Your task to perform on an android device: Go to Android settings Image 0: 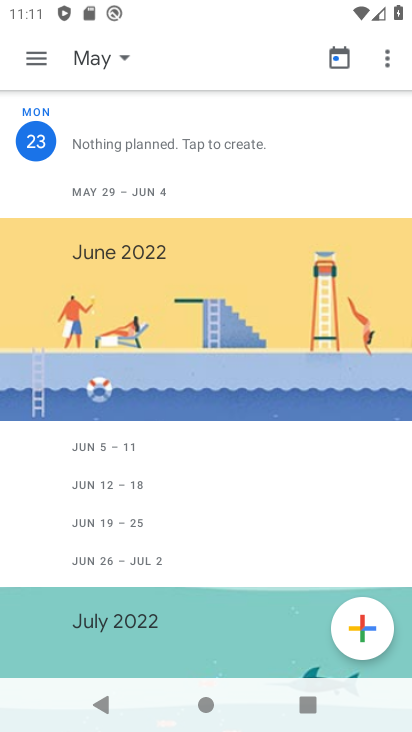
Step 0: drag from (206, 610) to (232, 168)
Your task to perform on an android device: Go to Android settings Image 1: 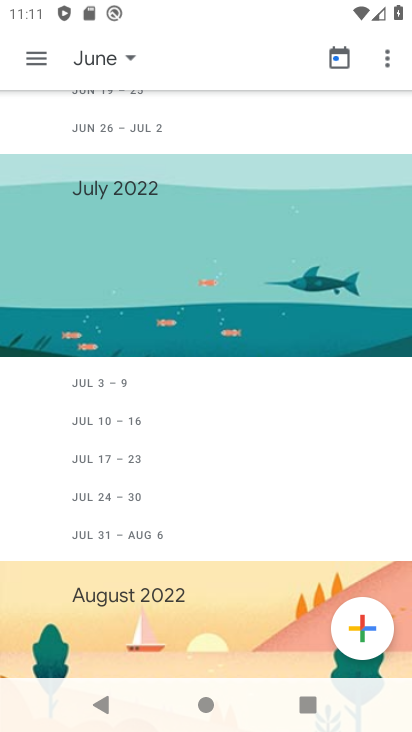
Step 1: press home button
Your task to perform on an android device: Go to Android settings Image 2: 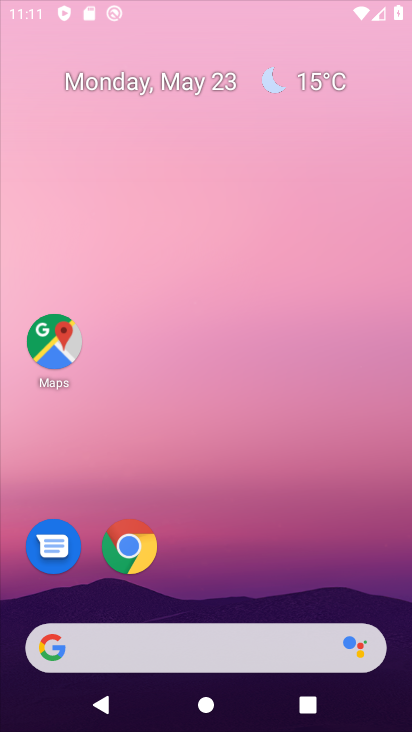
Step 2: drag from (257, 537) to (254, 135)
Your task to perform on an android device: Go to Android settings Image 3: 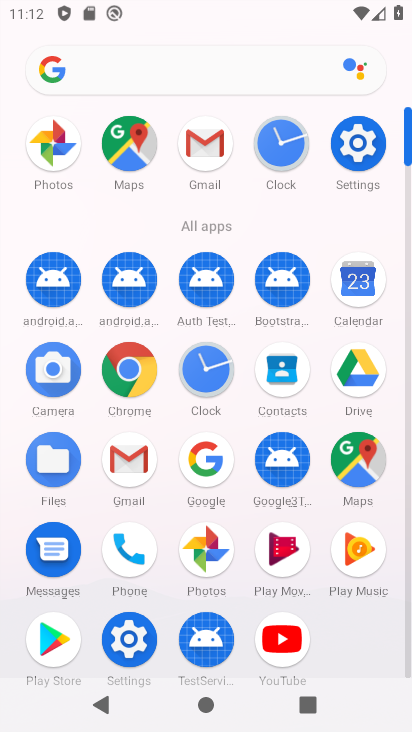
Step 3: click (361, 148)
Your task to perform on an android device: Go to Android settings Image 4: 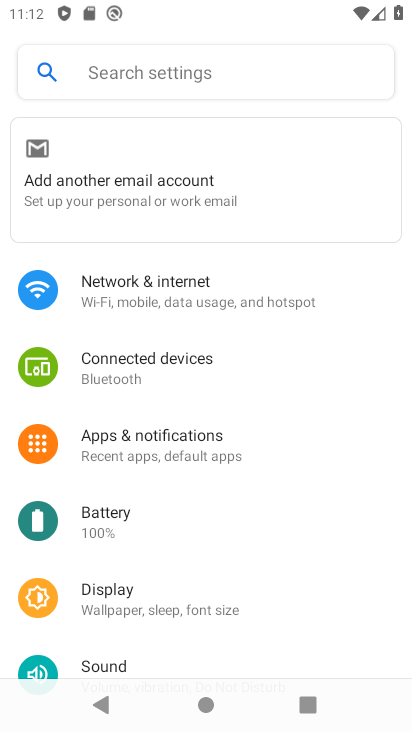
Step 4: drag from (184, 545) to (199, 261)
Your task to perform on an android device: Go to Android settings Image 5: 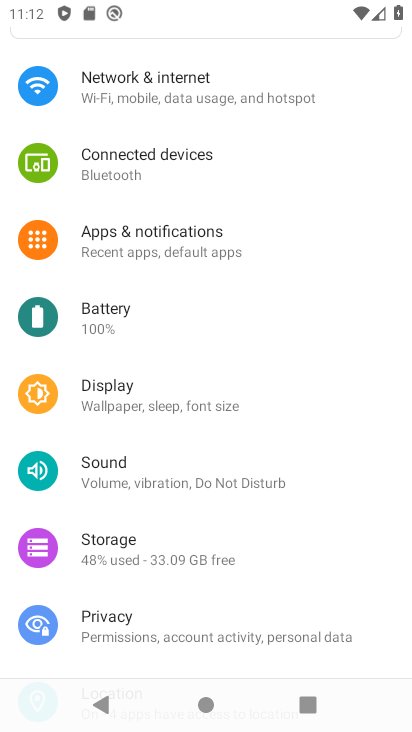
Step 5: drag from (191, 620) to (240, 224)
Your task to perform on an android device: Go to Android settings Image 6: 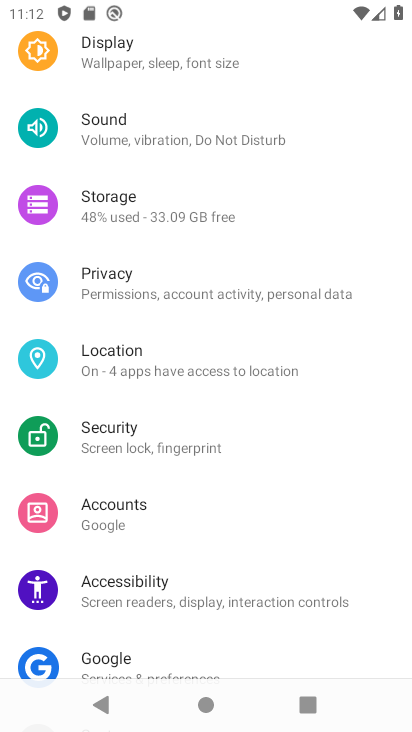
Step 6: drag from (170, 580) to (262, 118)
Your task to perform on an android device: Go to Android settings Image 7: 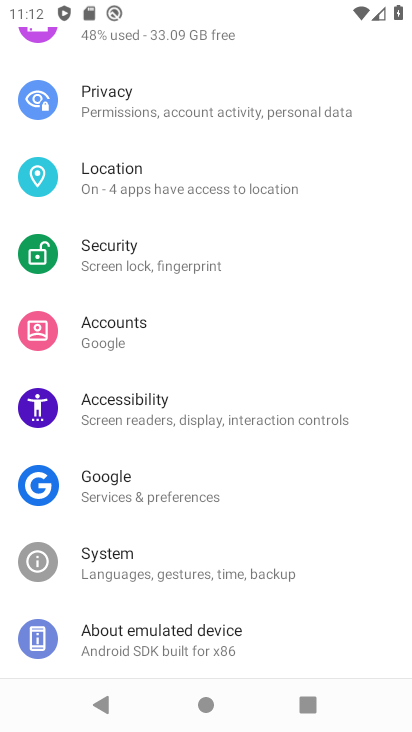
Step 7: click (155, 615)
Your task to perform on an android device: Go to Android settings Image 8: 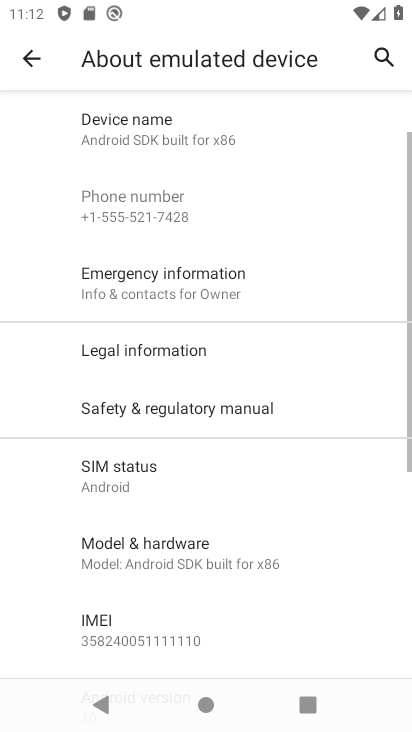
Step 8: drag from (241, 587) to (292, 158)
Your task to perform on an android device: Go to Android settings Image 9: 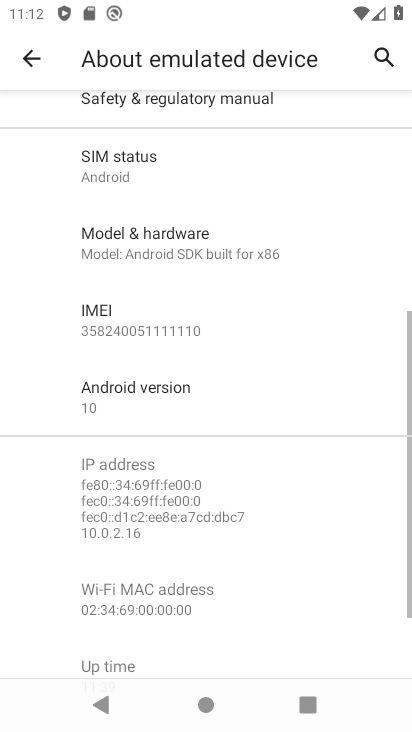
Step 9: click (156, 412)
Your task to perform on an android device: Go to Android settings Image 10: 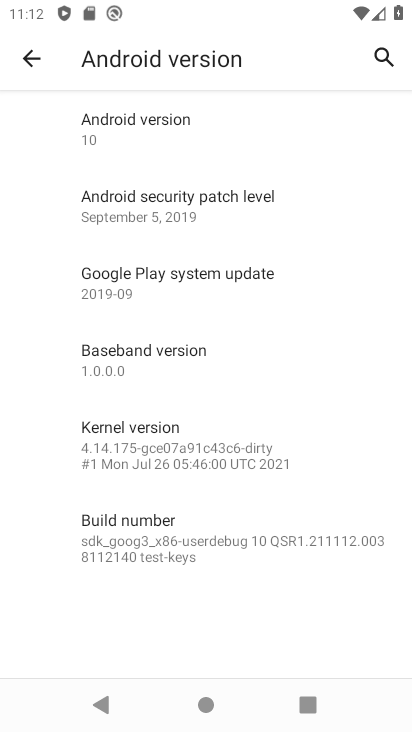
Step 10: click (184, 125)
Your task to perform on an android device: Go to Android settings Image 11: 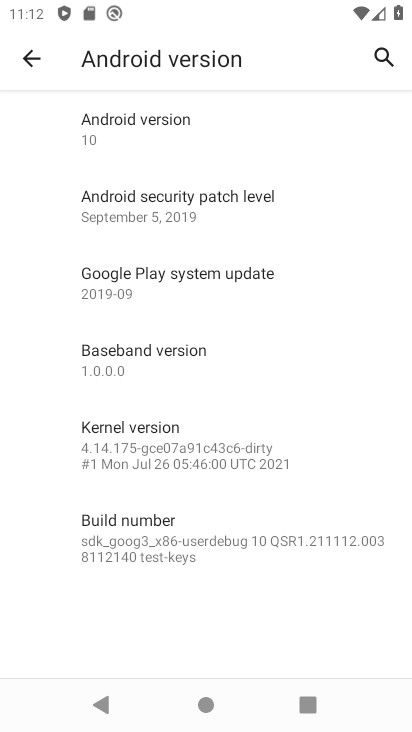
Step 11: task complete